Your task to perform on an android device: refresh tabs in the chrome app Image 0: 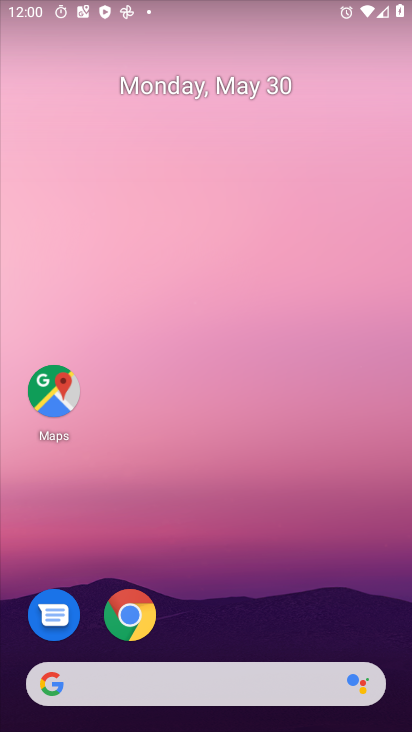
Step 0: drag from (229, 583) to (228, 117)
Your task to perform on an android device: refresh tabs in the chrome app Image 1: 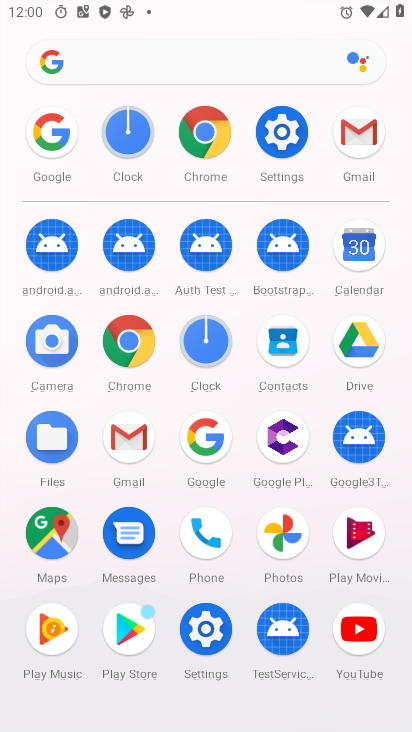
Step 1: click (201, 130)
Your task to perform on an android device: refresh tabs in the chrome app Image 2: 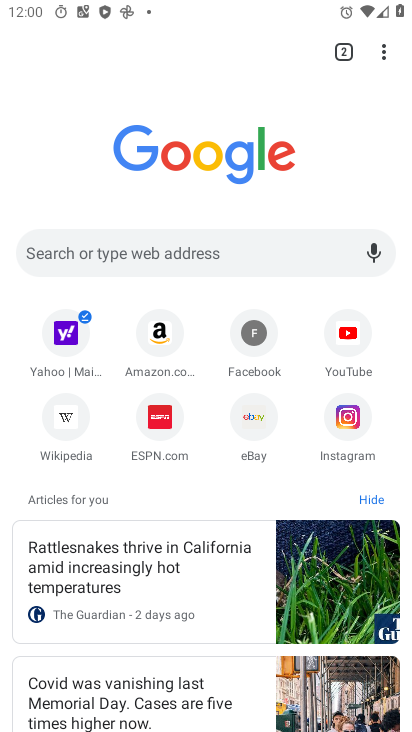
Step 2: click (373, 53)
Your task to perform on an android device: refresh tabs in the chrome app Image 3: 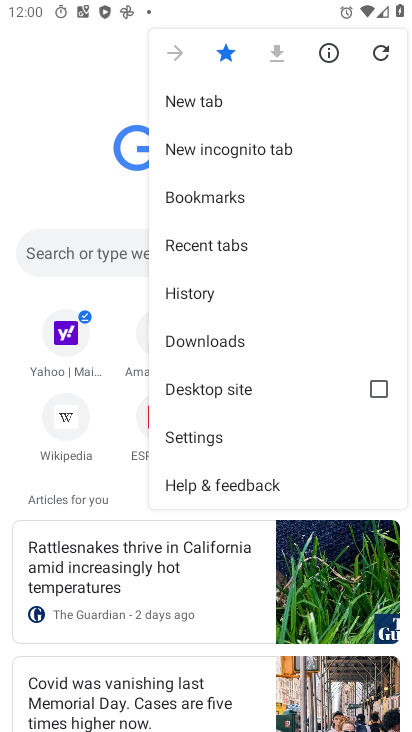
Step 3: click (381, 53)
Your task to perform on an android device: refresh tabs in the chrome app Image 4: 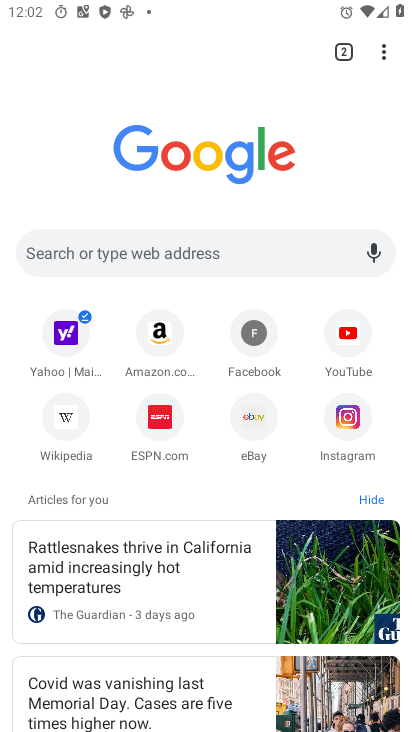
Step 4: task complete